Your task to perform on an android device: turn off notifications settings in the gmail app Image 0: 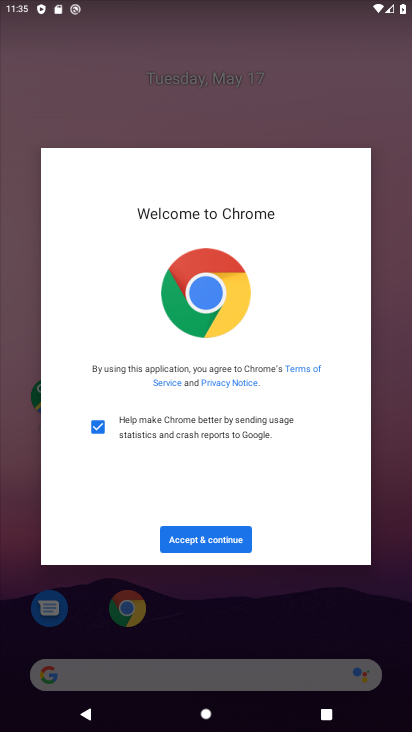
Step 0: click (186, 537)
Your task to perform on an android device: turn off notifications settings in the gmail app Image 1: 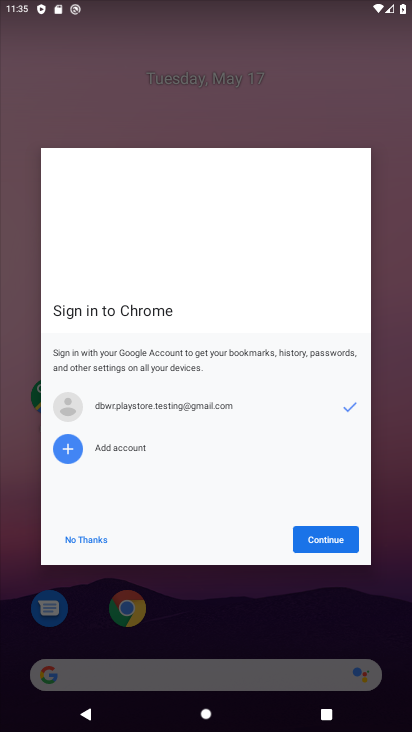
Step 1: click (336, 544)
Your task to perform on an android device: turn off notifications settings in the gmail app Image 2: 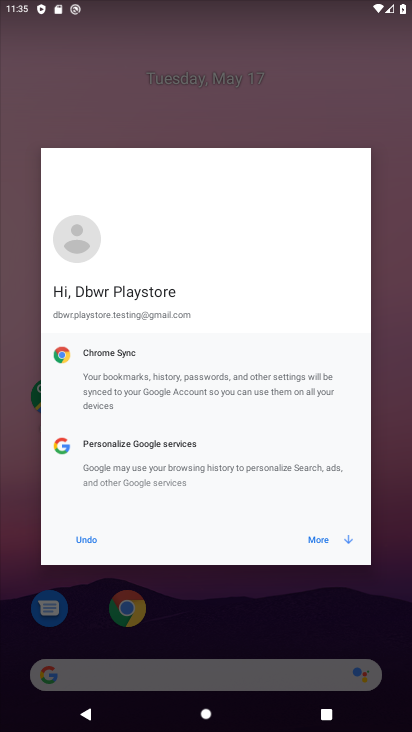
Step 2: click (327, 537)
Your task to perform on an android device: turn off notifications settings in the gmail app Image 3: 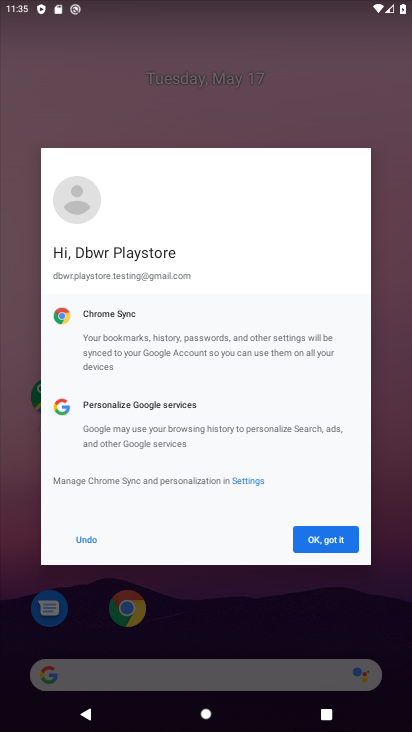
Step 3: click (327, 537)
Your task to perform on an android device: turn off notifications settings in the gmail app Image 4: 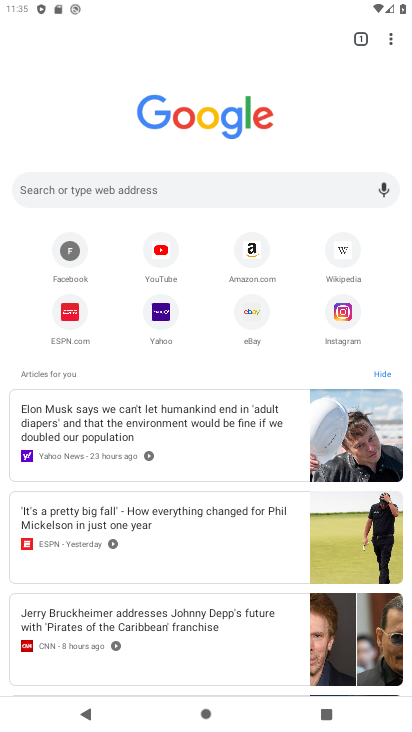
Step 4: press home button
Your task to perform on an android device: turn off notifications settings in the gmail app Image 5: 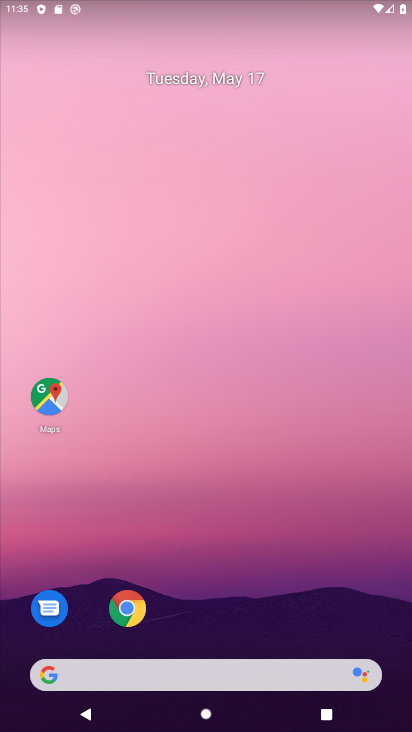
Step 5: drag from (269, 635) to (287, 12)
Your task to perform on an android device: turn off notifications settings in the gmail app Image 6: 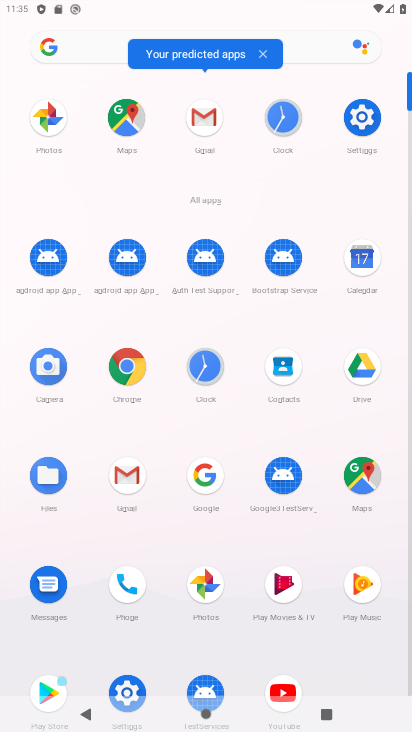
Step 6: click (210, 102)
Your task to perform on an android device: turn off notifications settings in the gmail app Image 7: 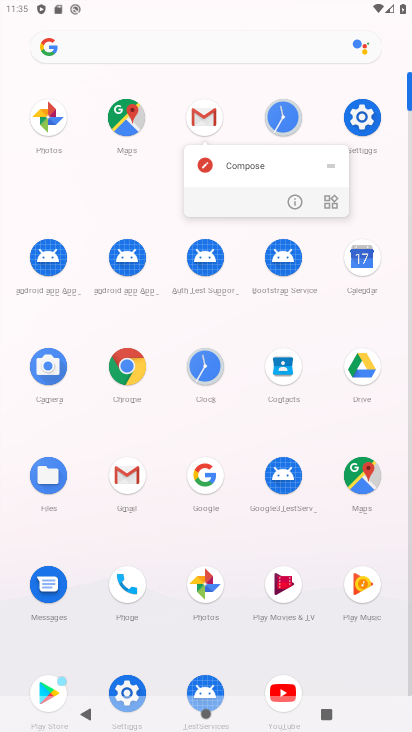
Step 7: click (292, 201)
Your task to perform on an android device: turn off notifications settings in the gmail app Image 8: 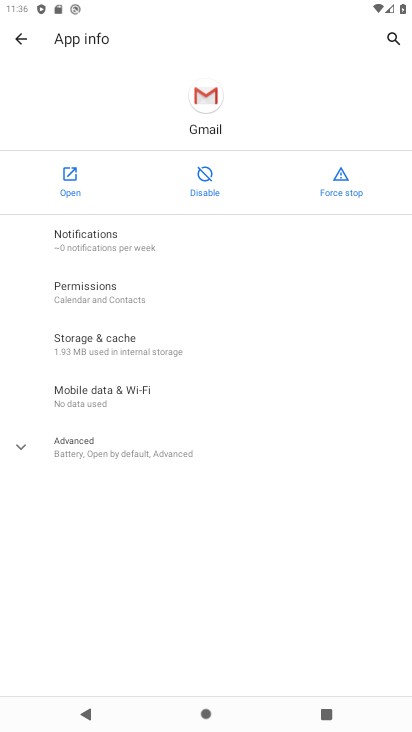
Step 8: click (190, 231)
Your task to perform on an android device: turn off notifications settings in the gmail app Image 9: 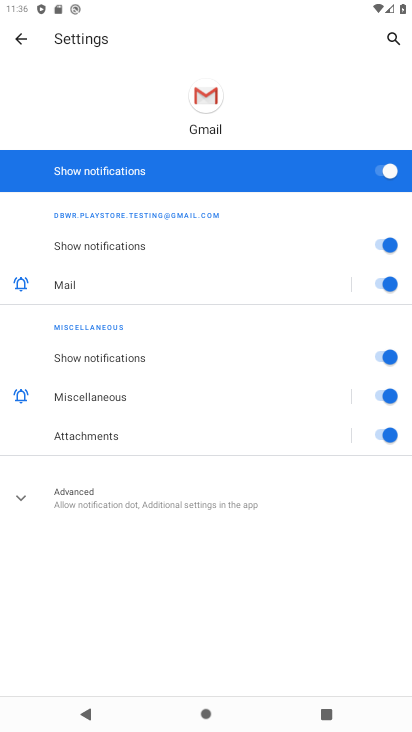
Step 9: click (392, 170)
Your task to perform on an android device: turn off notifications settings in the gmail app Image 10: 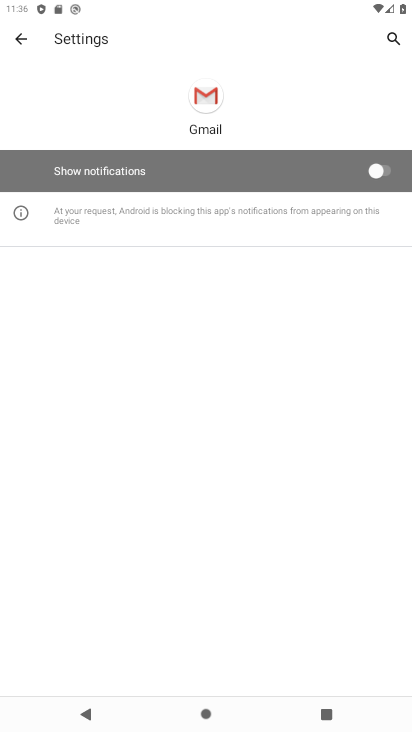
Step 10: task complete